Your task to perform on an android device: find which apps use the phone's location Image 0: 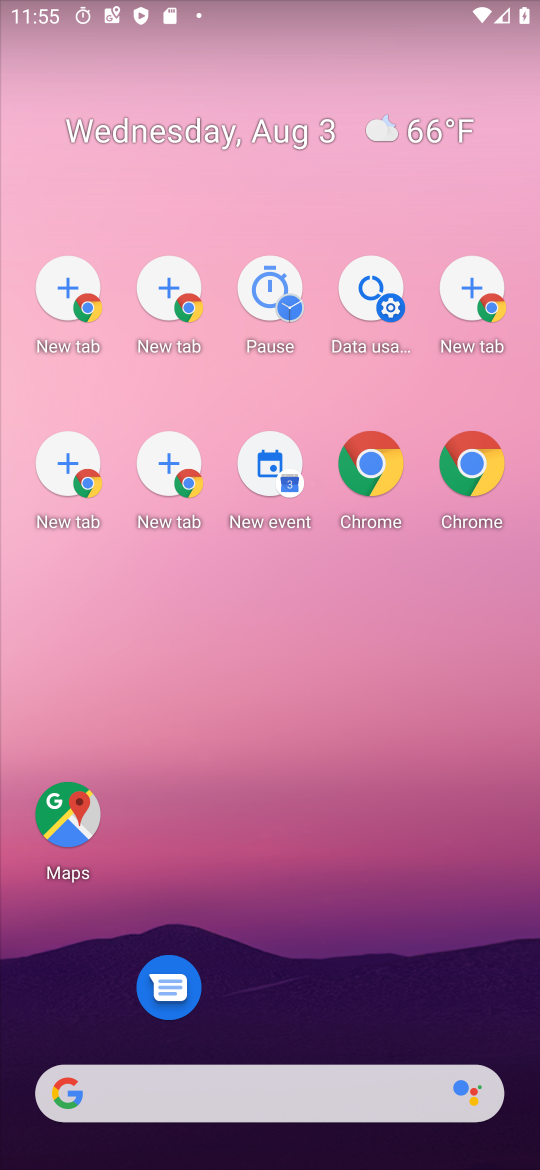
Step 0: drag from (341, 919) to (256, 330)
Your task to perform on an android device: find which apps use the phone's location Image 1: 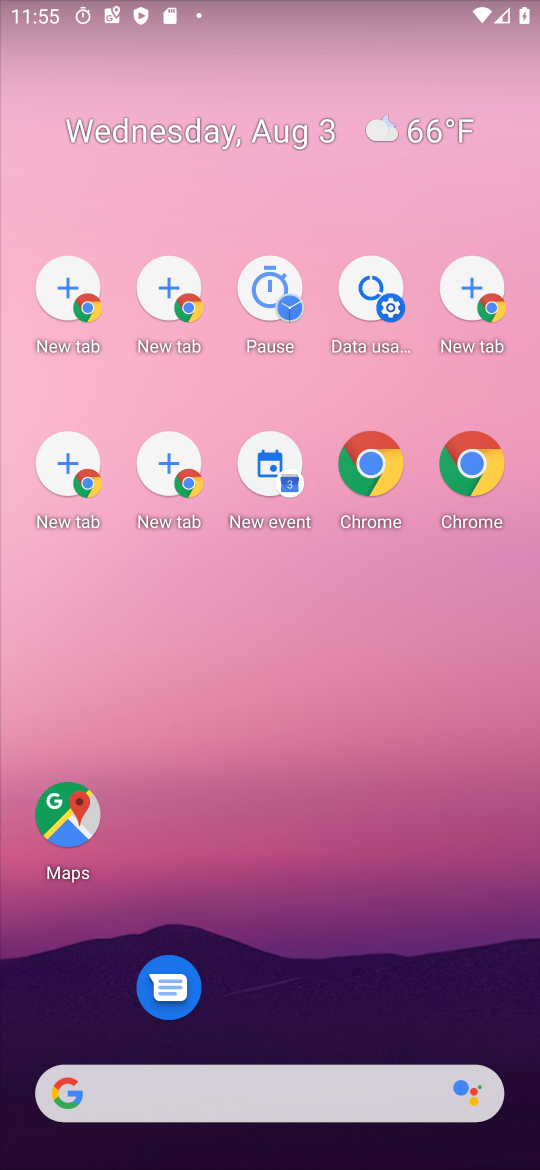
Step 1: drag from (384, 285) to (240, 351)
Your task to perform on an android device: find which apps use the phone's location Image 2: 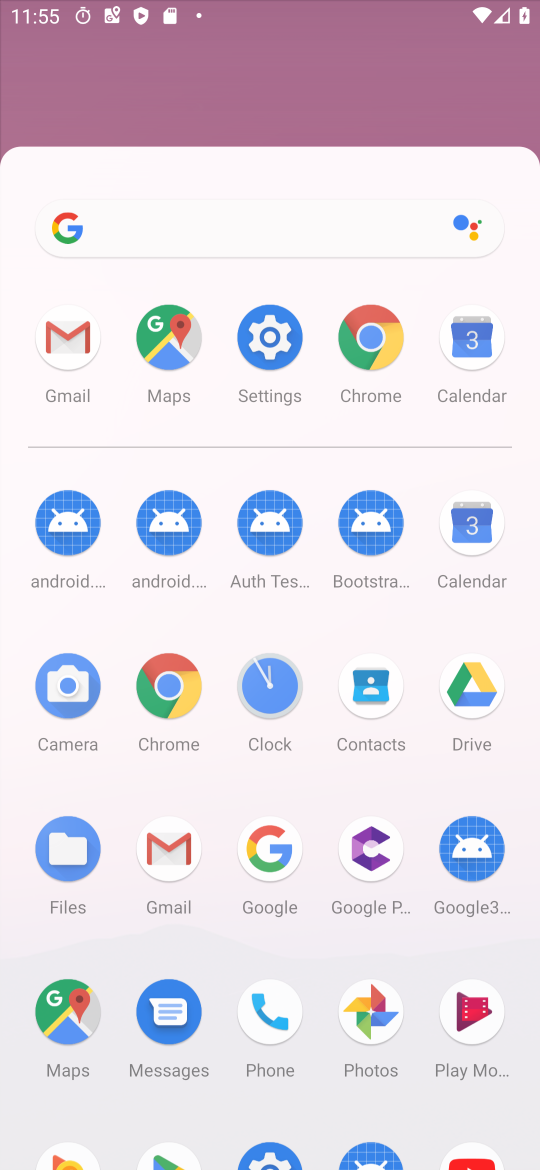
Step 2: drag from (288, 709) to (191, 92)
Your task to perform on an android device: find which apps use the phone's location Image 3: 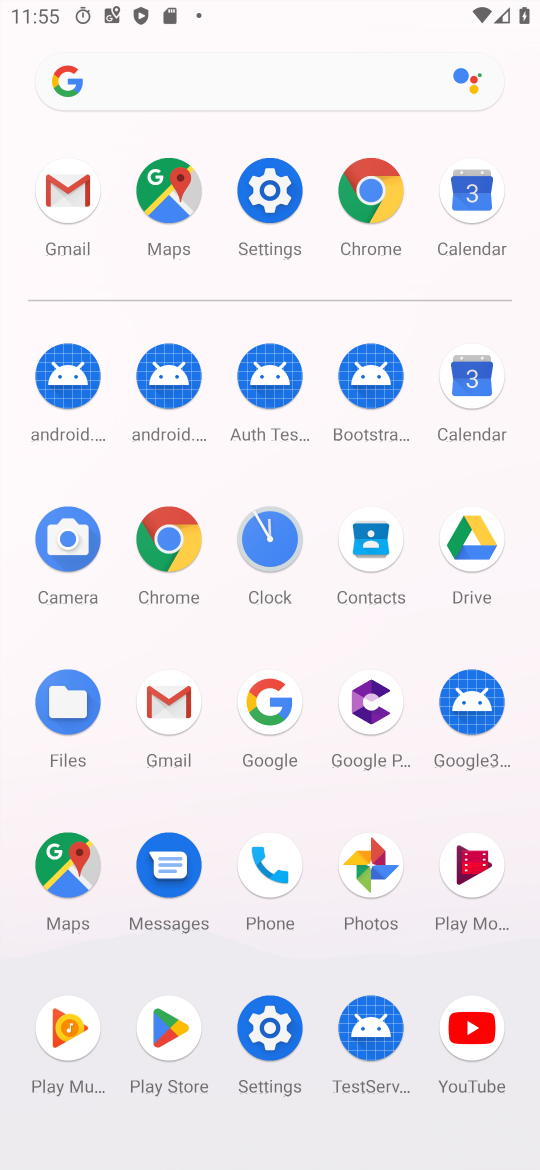
Step 3: click (279, 193)
Your task to perform on an android device: find which apps use the phone's location Image 4: 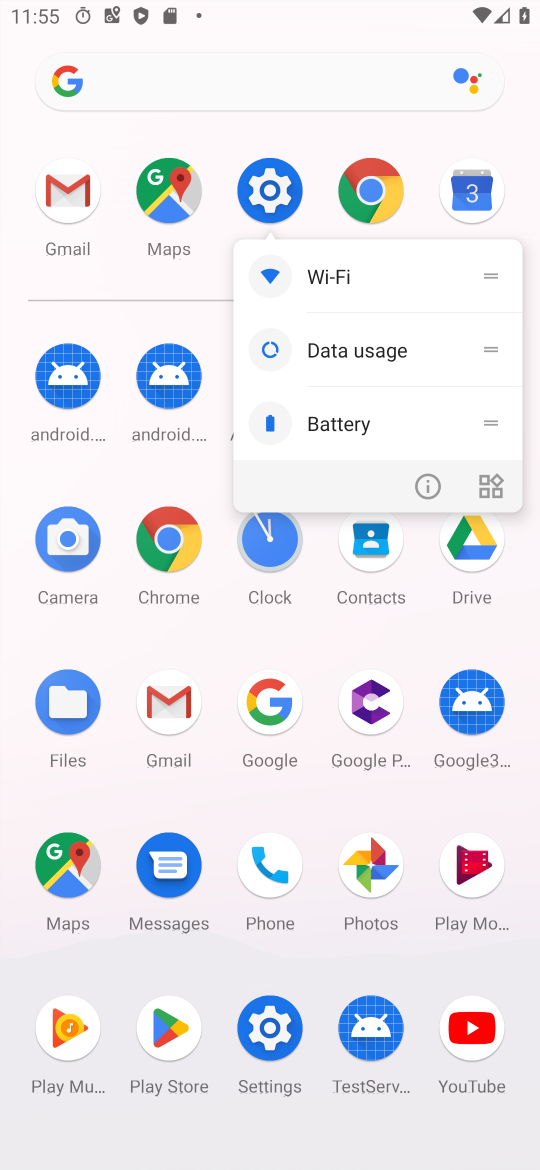
Step 4: click (271, 198)
Your task to perform on an android device: find which apps use the phone's location Image 5: 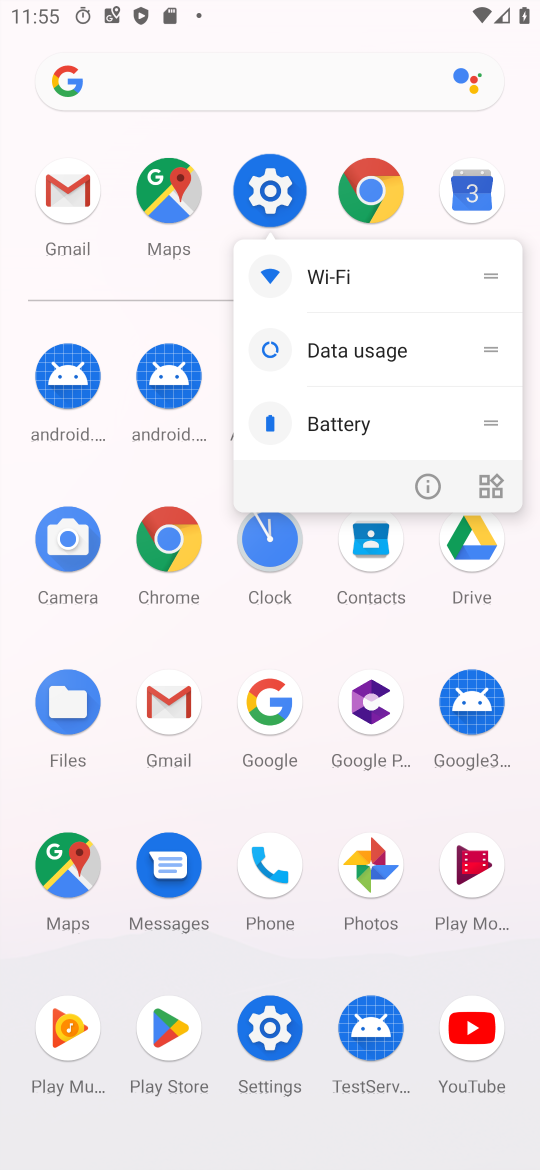
Step 5: click (271, 209)
Your task to perform on an android device: find which apps use the phone's location Image 6: 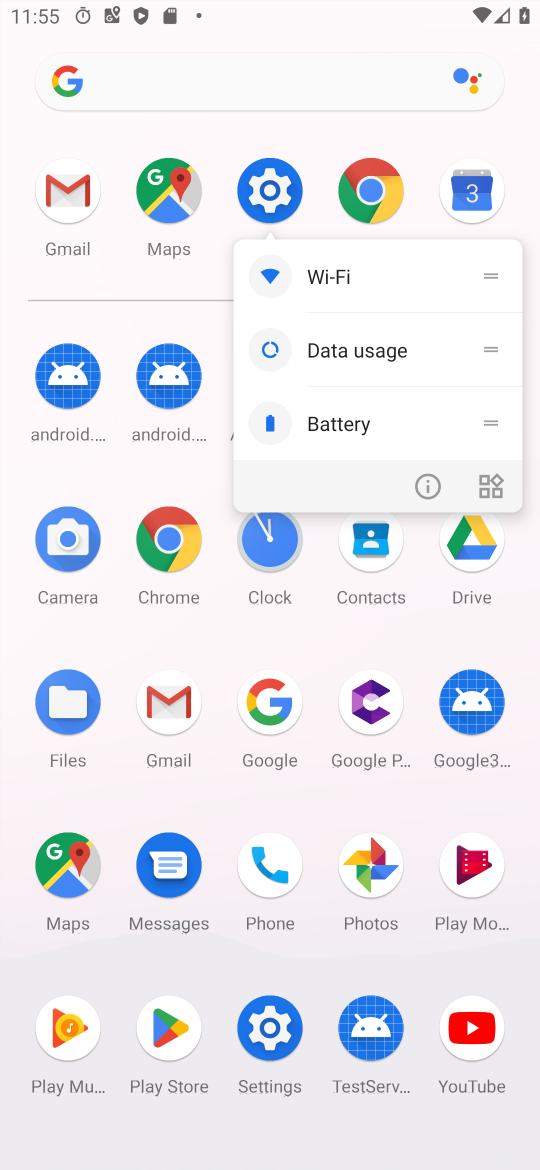
Step 6: click (271, 209)
Your task to perform on an android device: find which apps use the phone's location Image 7: 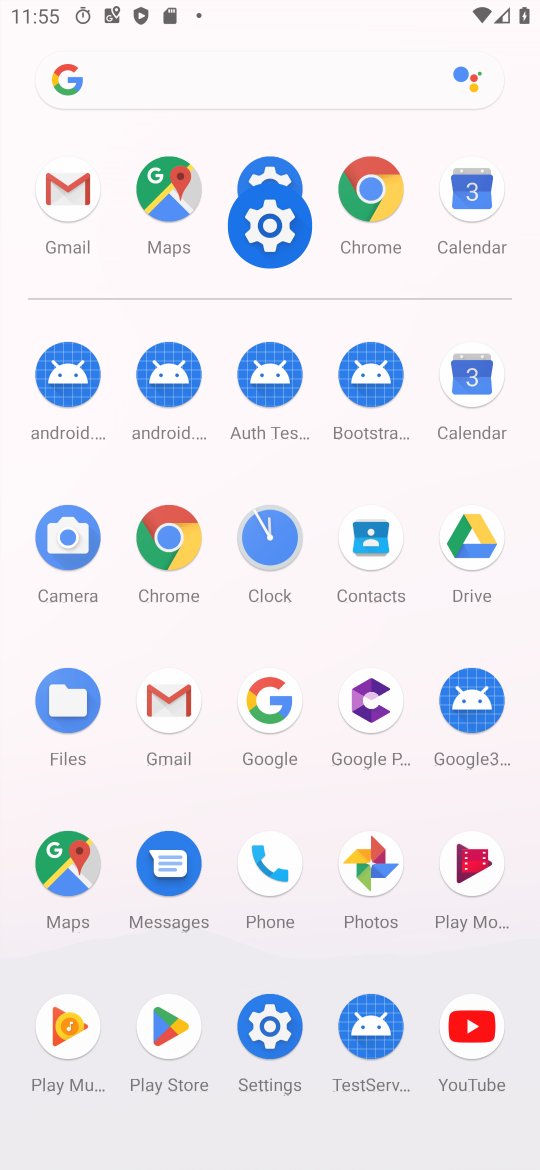
Step 7: click (277, 178)
Your task to perform on an android device: find which apps use the phone's location Image 8: 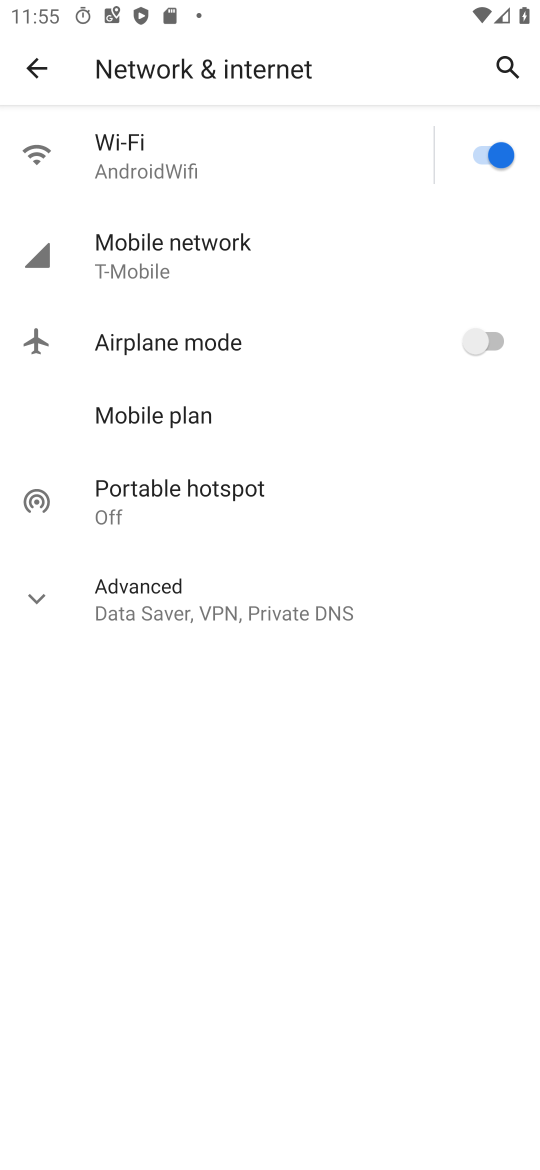
Step 8: click (33, 73)
Your task to perform on an android device: find which apps use the phone's location Image 9: 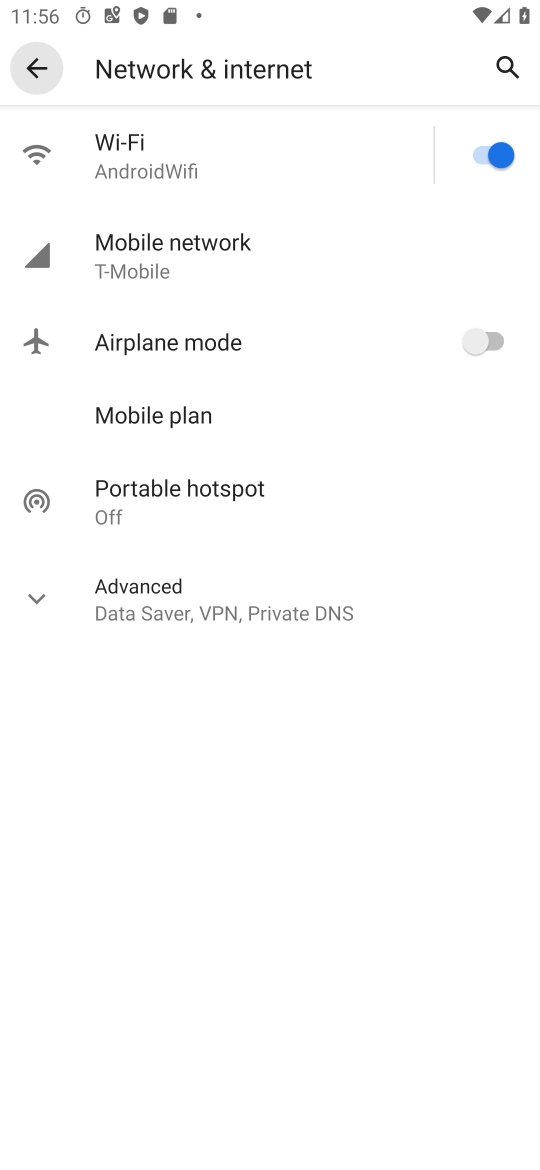
Step 9: click (39, 69)
Your task to perform on an android device: find which apps use the phone's location Image 10: 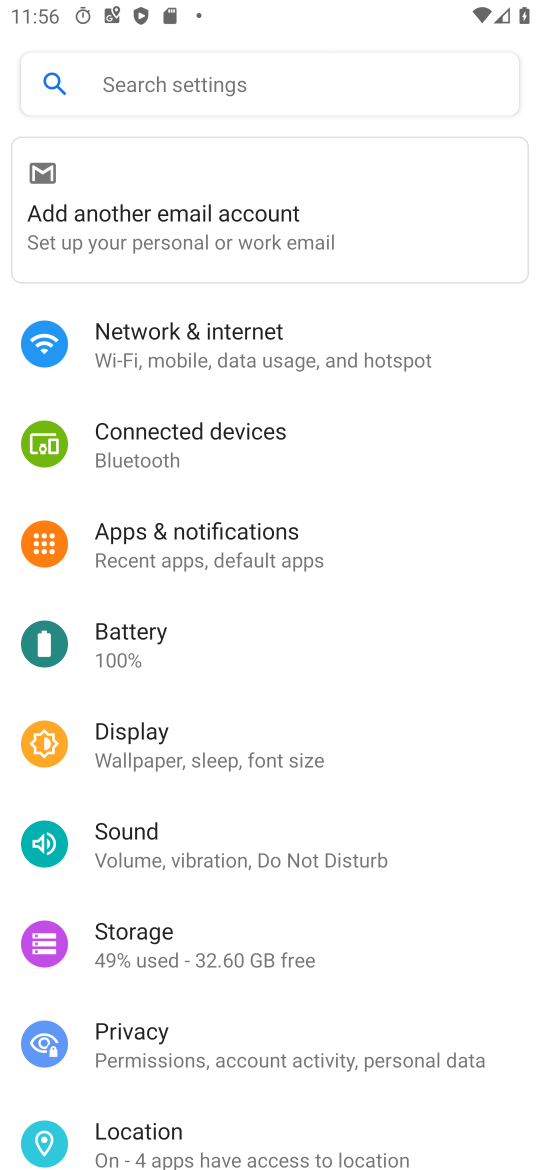
Step 10: click (165, 1138)
Your task to perform on an android device: find which apps use the phone's location Image 11: 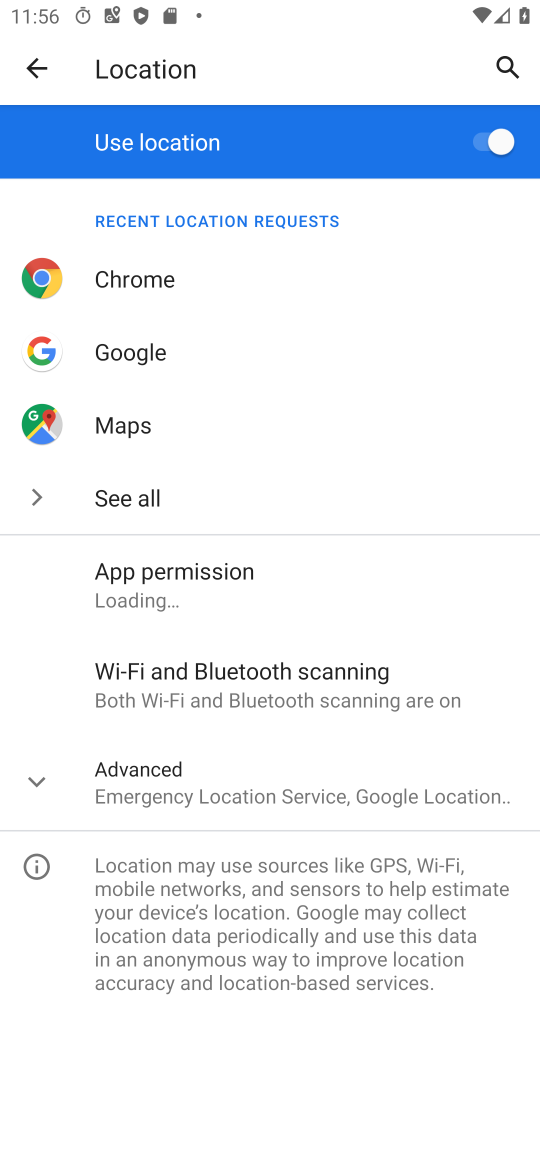
Step 11: click (232, 682)
Your task to perform on an android device: find which apps use the phone's location Image 12: 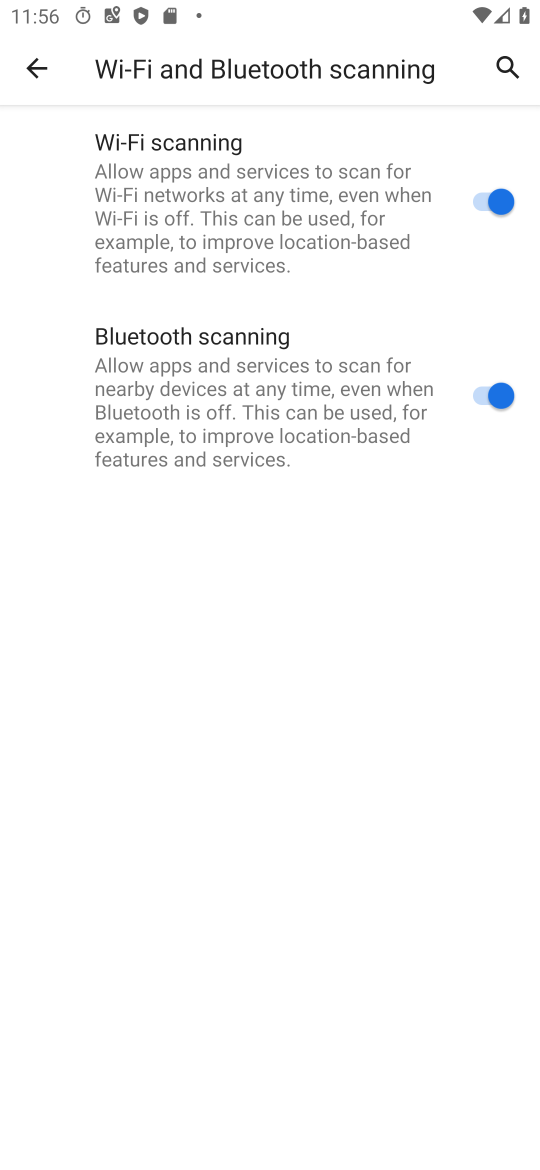
Step 12: click (26, 63)
Your task to perform on an android device: find which apps use the phone's location Image 13: 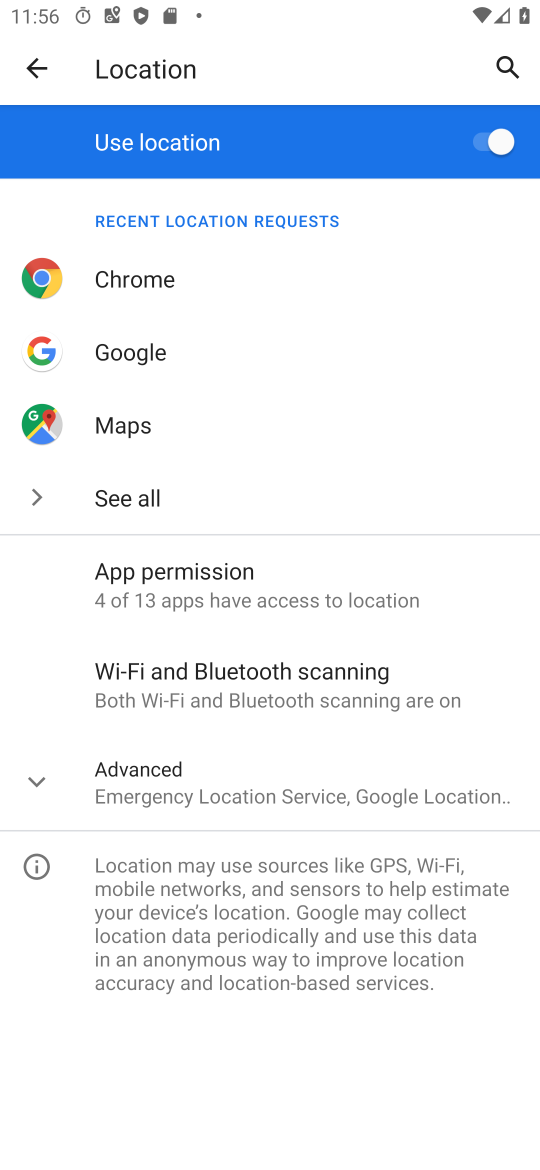
Step 13: click (193, 599)
Your task to perform on an android device: find which apps use the phone's location Image 14: 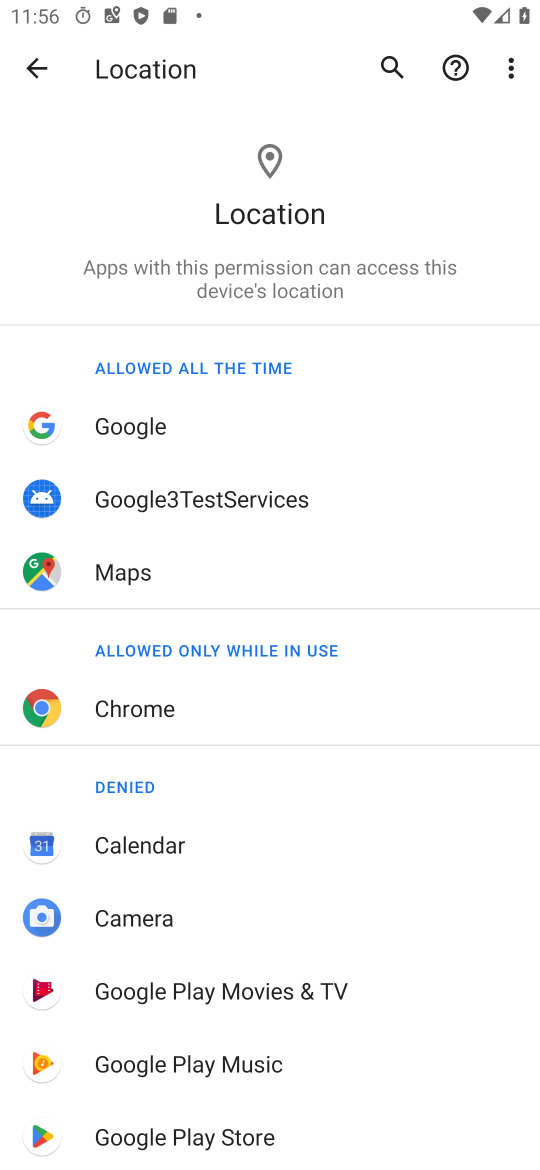
Step 14: task complete